Your task to perform on an android device: Go to CNN.com Image 0: 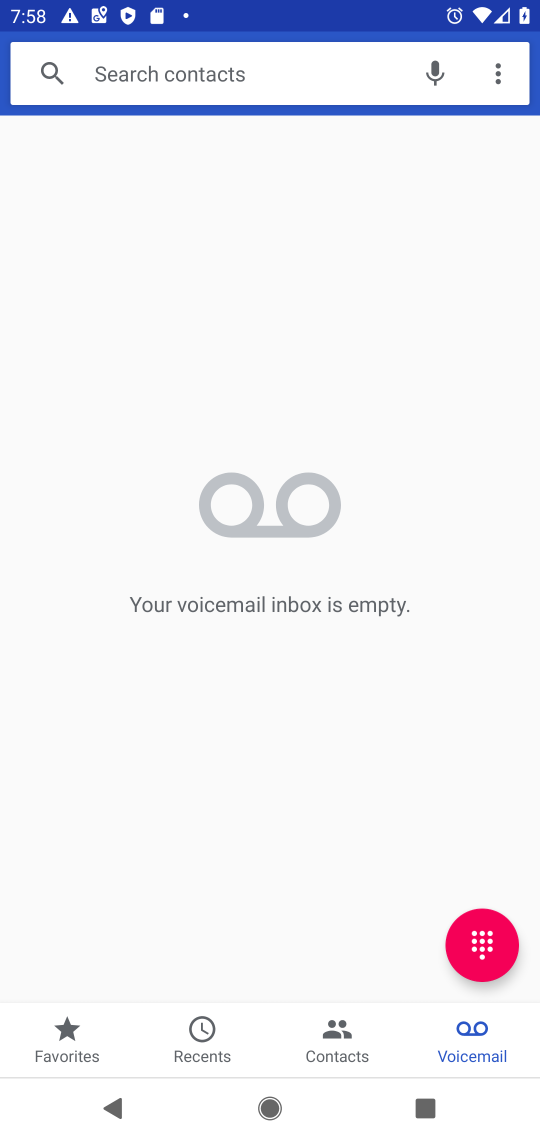
Step 0: press home button
Your task to perform on an android device: Go to CNN.com Image 1: 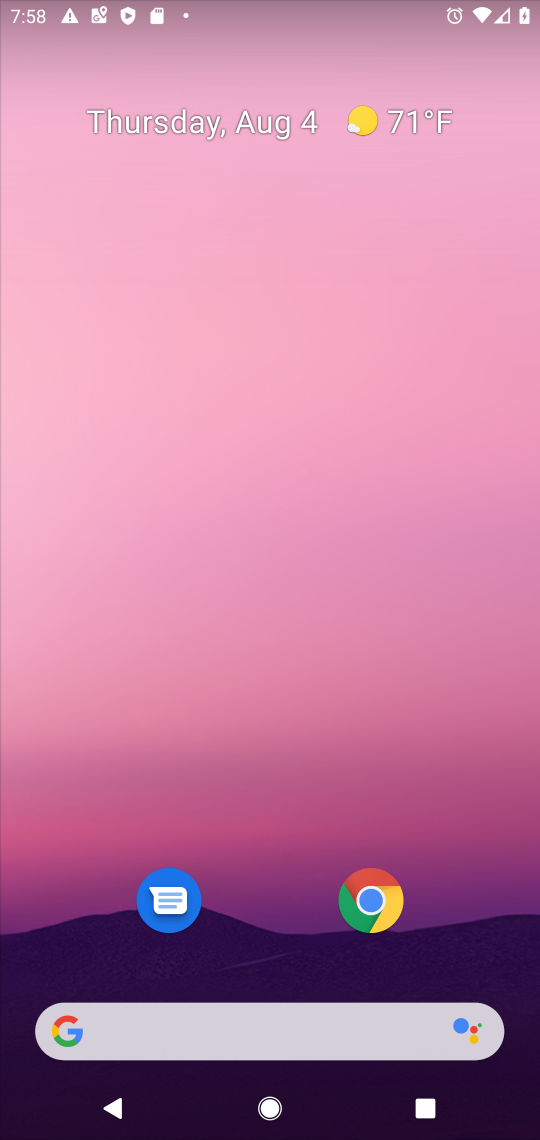
Step 1: click (372, 902)
Your task to perform on an android device: Go to CNN.com Image 2: 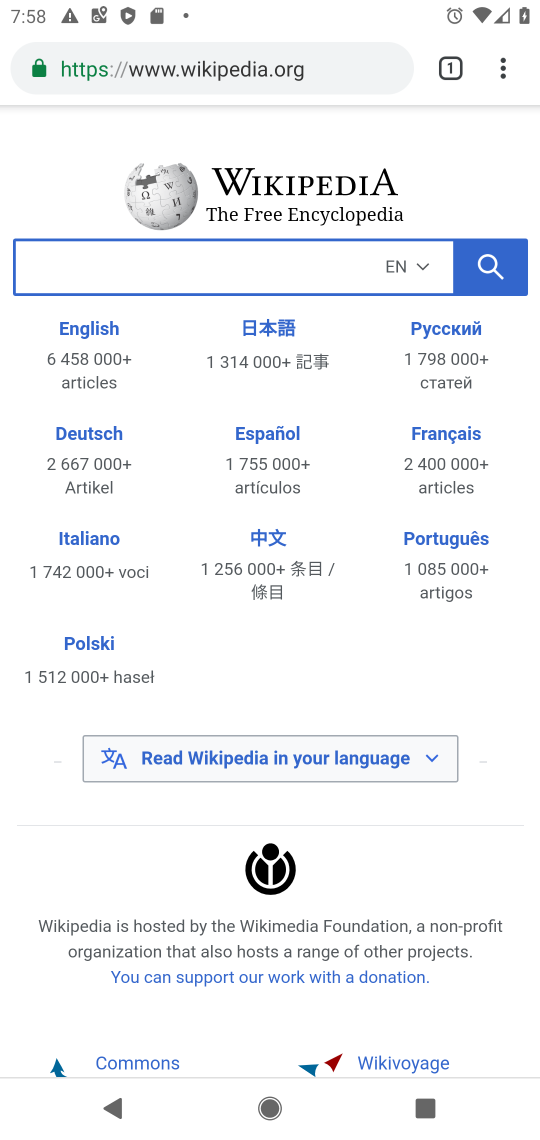
Step 2: click (351, 70)
Your task to perform on an android device: Go to CNN.com Image 3: 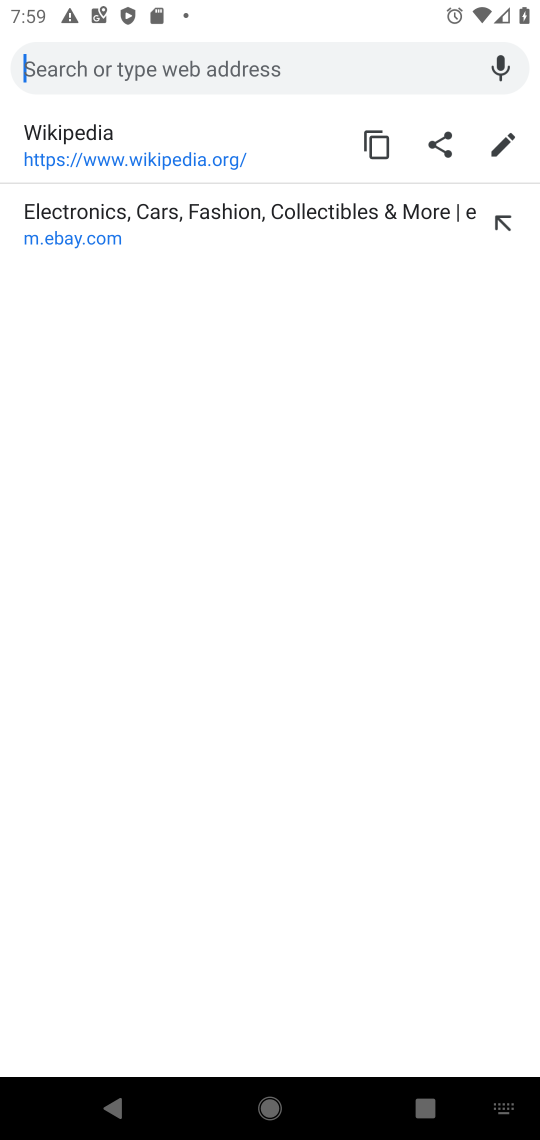
Step 3: type "CNN.com"
Your task to perform on an android device: Go to CNN.com Image 4: 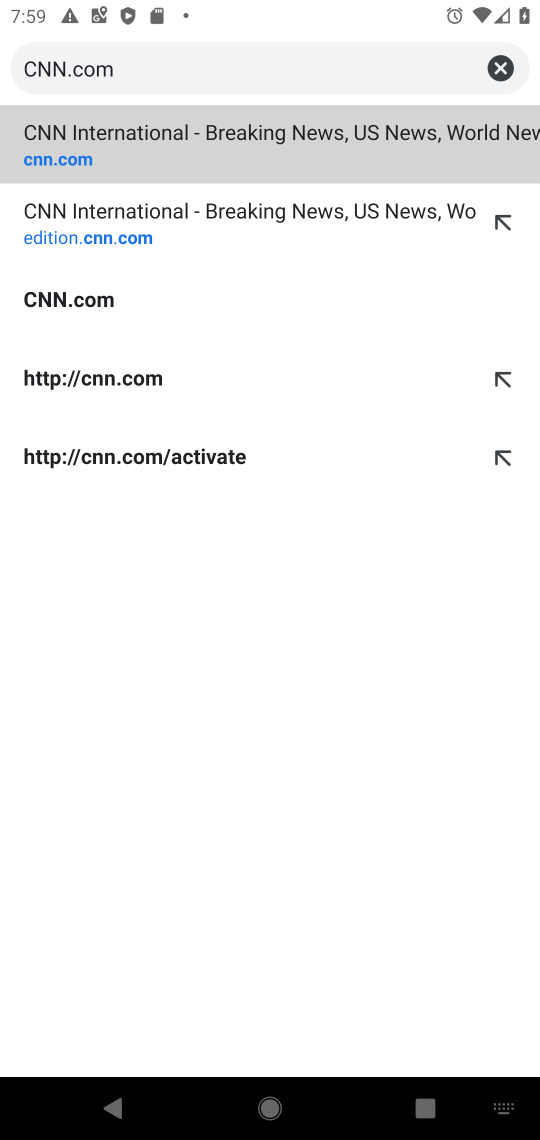
Step 4: click (85, 288)
Your task to perform on an android device: Go to CNN.com Image 5: 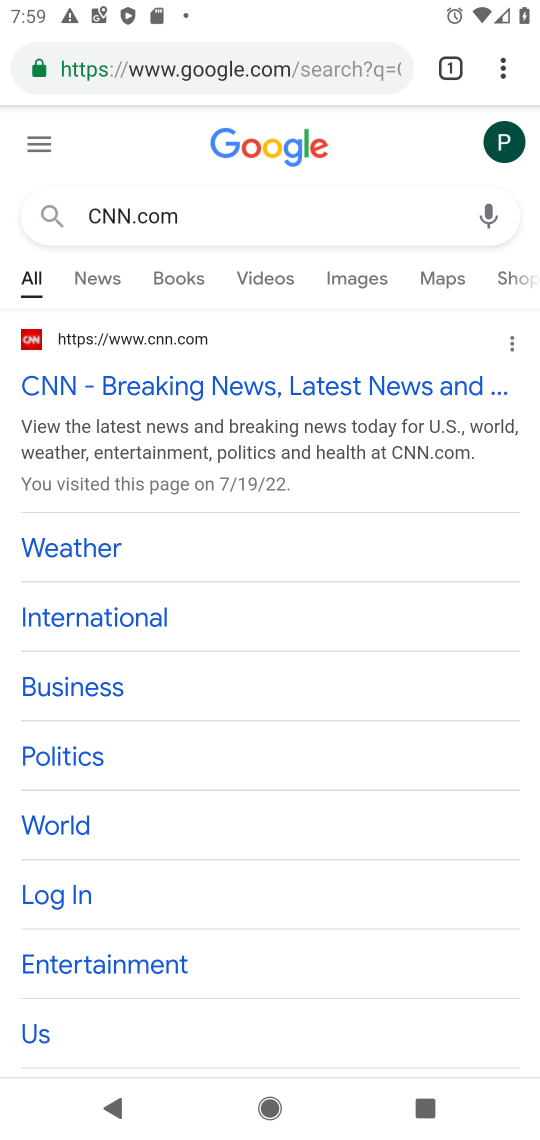
Step 5: click (134, 388)
Your task to perform on an android device: Go to CNN.com Image 6: 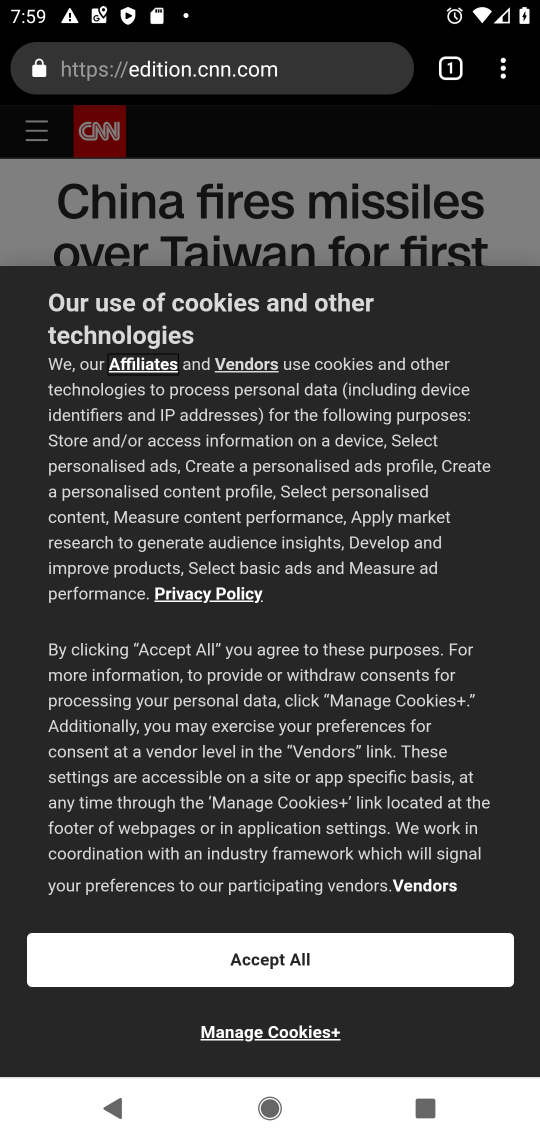
Step 6: click (284, 956)
Your task to perform on an android device: Go to CNN.com Image 7: 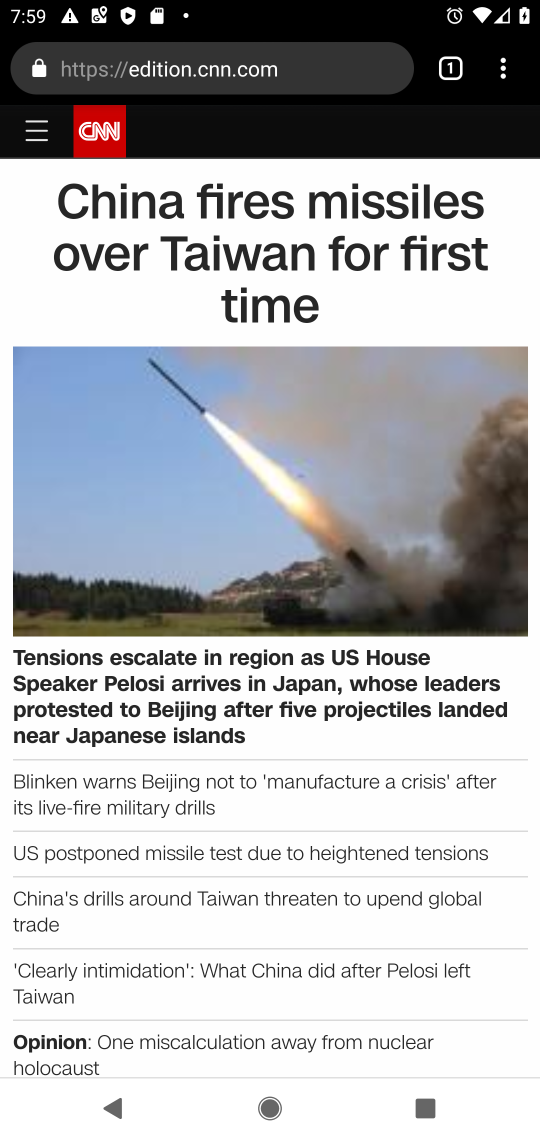
Step 7: task complete